Your task to perform on an android device: open a new tab in the chrome app Image 0: 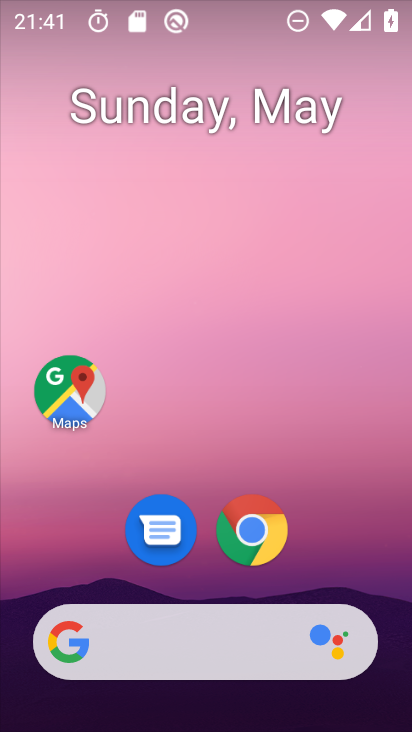
Step 0: drag from (284, 693) to (235, 129)
Your task to perform on an android device: open a new tab in the chrome app Image 1: 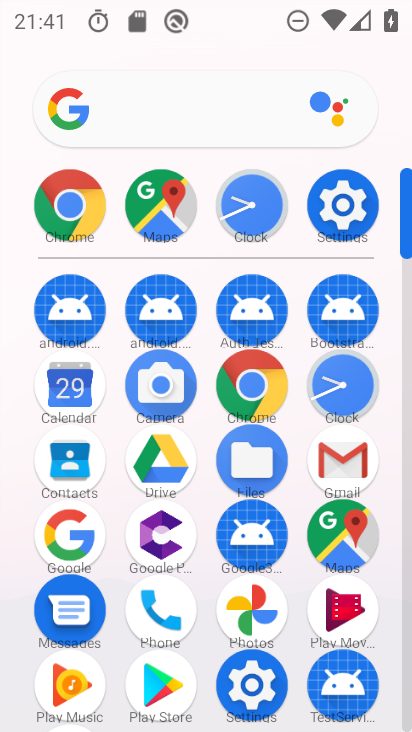
Step 1: click (80, 199)
Your task to perform on an android device: open a new tab in the chrome app Image 2: 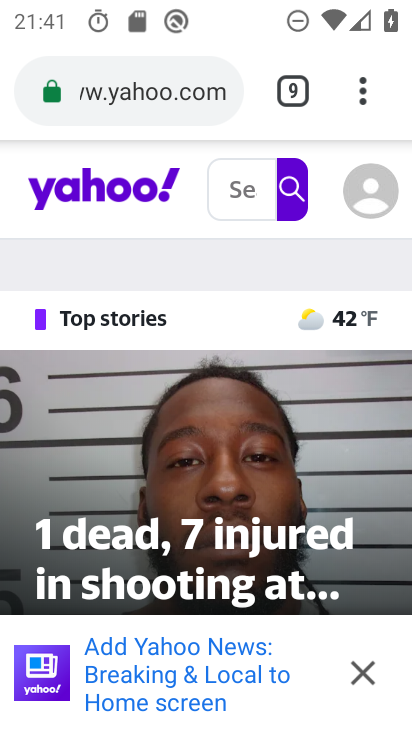
Step 2: click (361, 87)
Your task to perform on an android device: open a new tab in the chrome app Image 3: 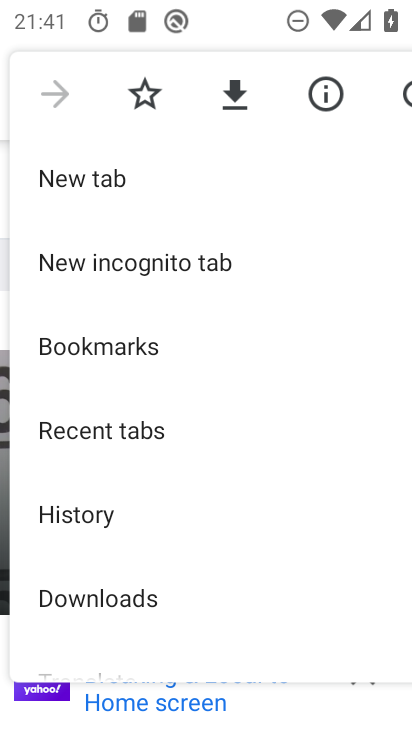
Step 3: click (130, 181)
Your task to perform on an android device: open a new tab in the chrome app Image 4: 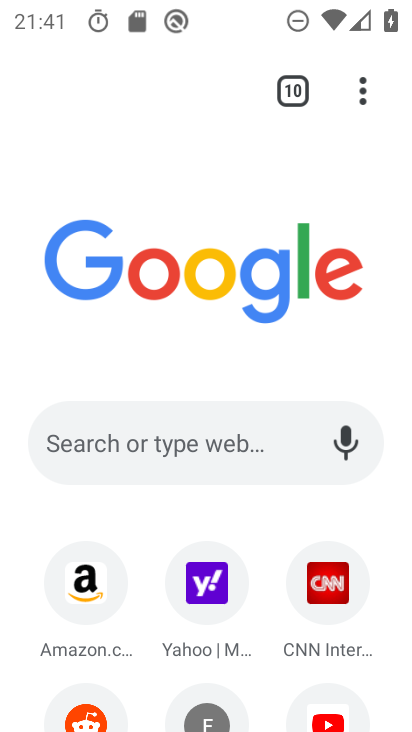
Step 4: task complete